Your task to perform on an android device: toggle priority inbox in the gmail app Image 0: 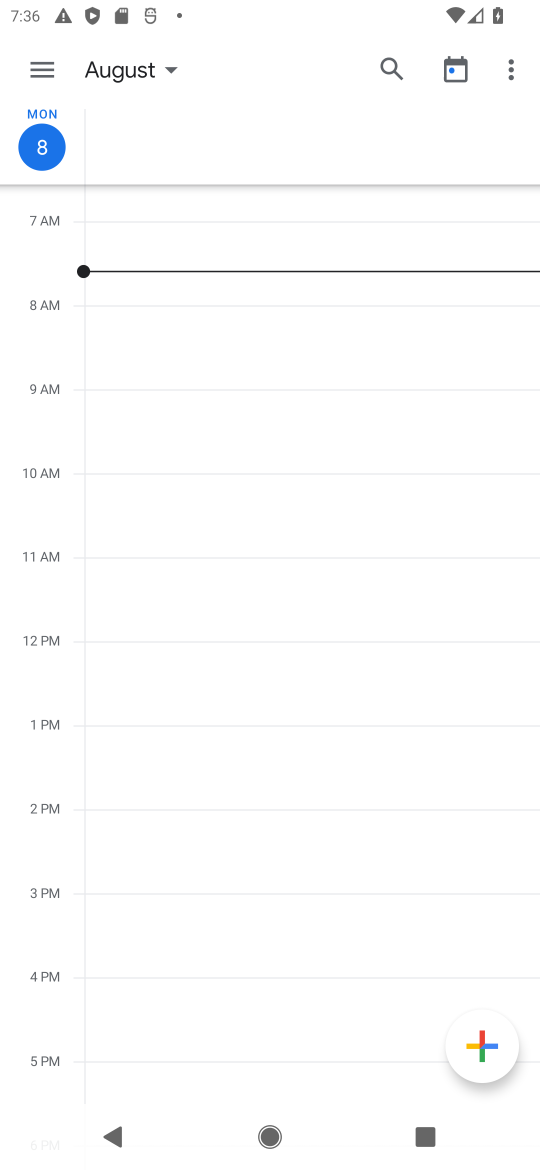
Step 0: press home button
Your task to perform on an android device: toggle priority inbox in the gmail app Image 1: 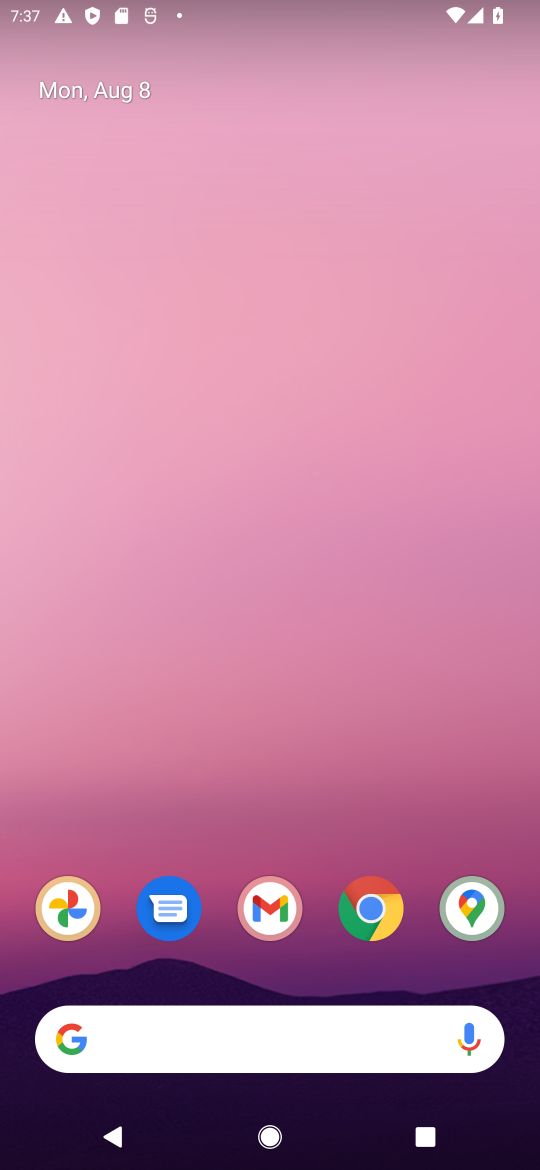
Step 1: click (259, 908)
Your task to perform on an android device: toggle priority inbox in the gmail app Image 2: 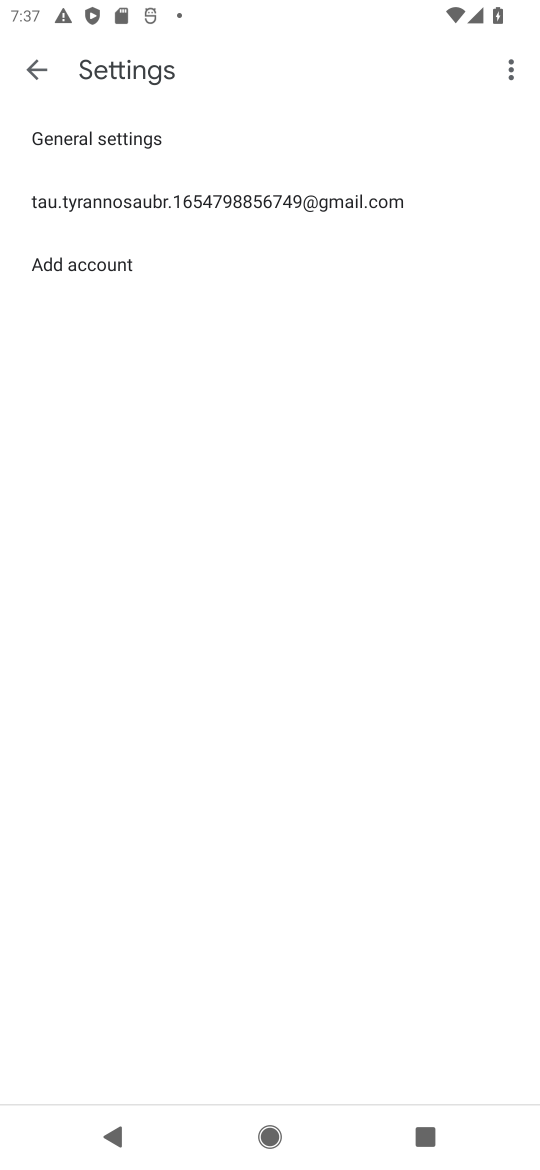
Step 2: click (153, 199)
Your task to perform on an android device: toggle priority inbox in the gmail app Image 3: 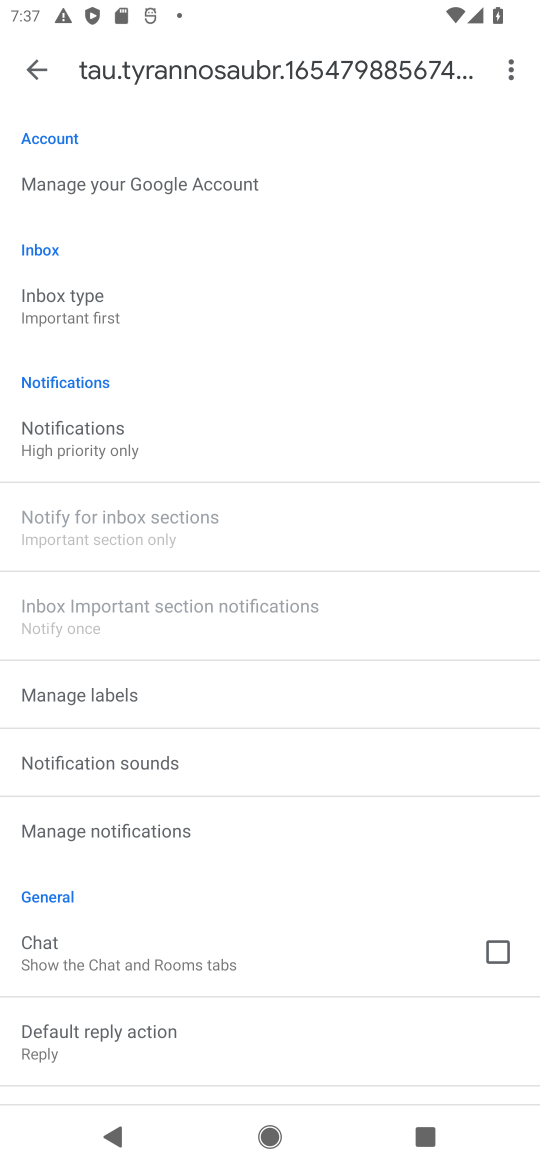
Step 3: click (140, 437)
Your task to perform on an android device: toggle priority inbox in the gmail app Image 4: 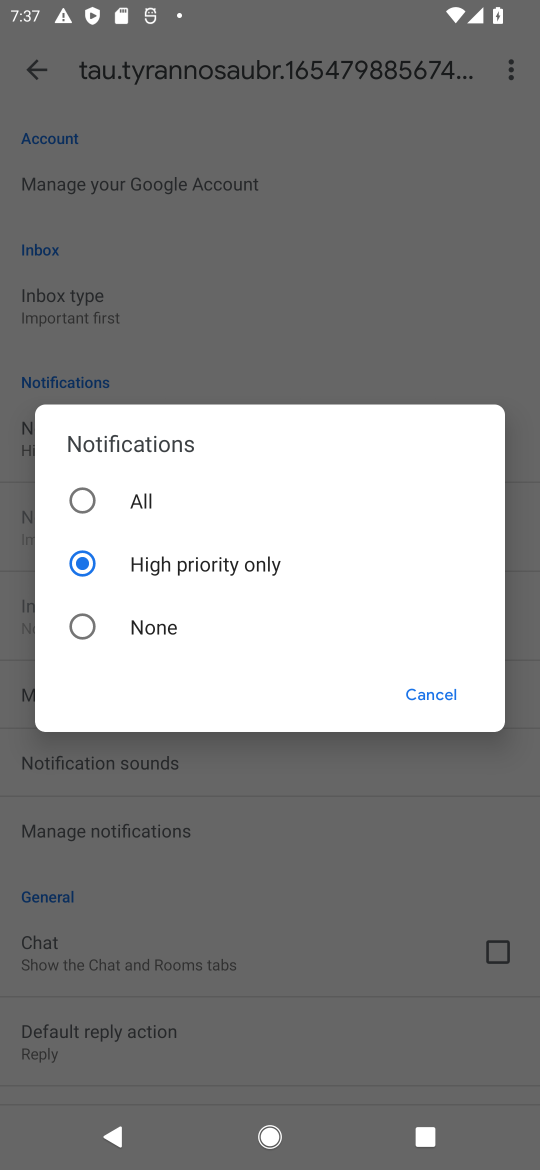
Step 4: click (158, 508)
Your task to perform on an android device: toggle priority inbox in the gmail app Image 5: 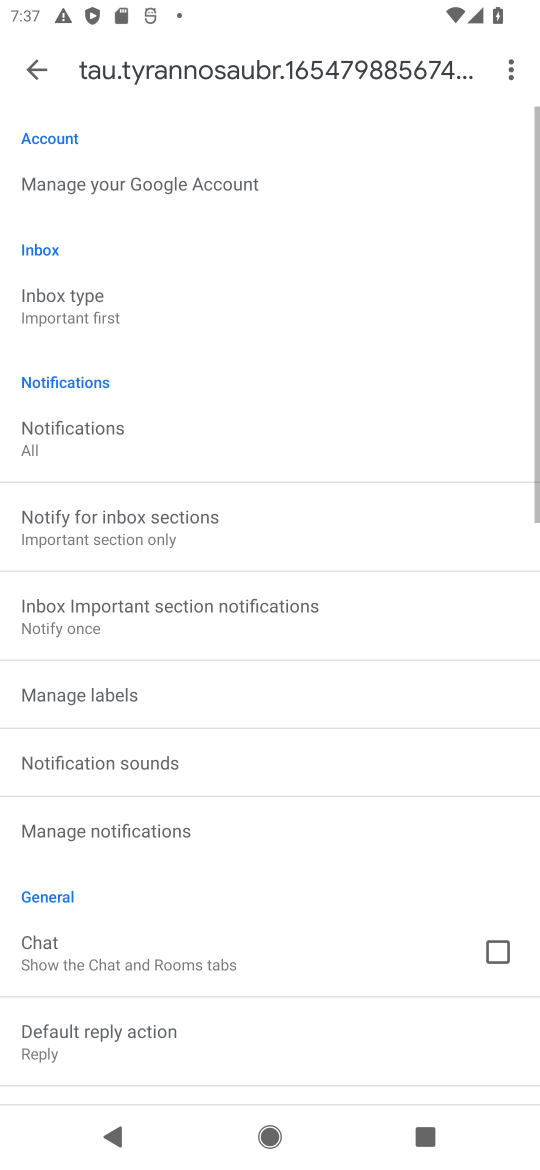
Step 5: task complete